Your task to perform on an android device: Open the map Image 0: 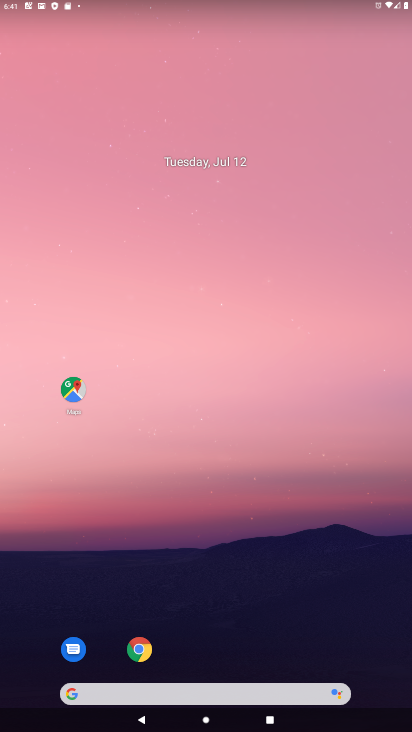
Step 0: click (74, 389)
Your task to perform on an android device: Open the map Image 1: 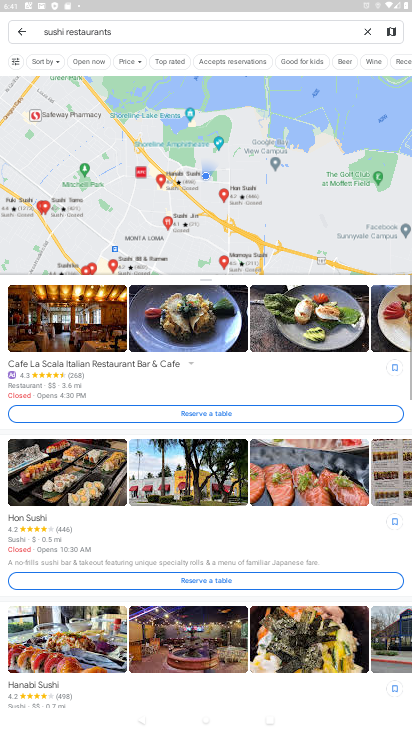
Step 1: click (364, 30)
Your task to perform on an android device: Open the map Image 2: 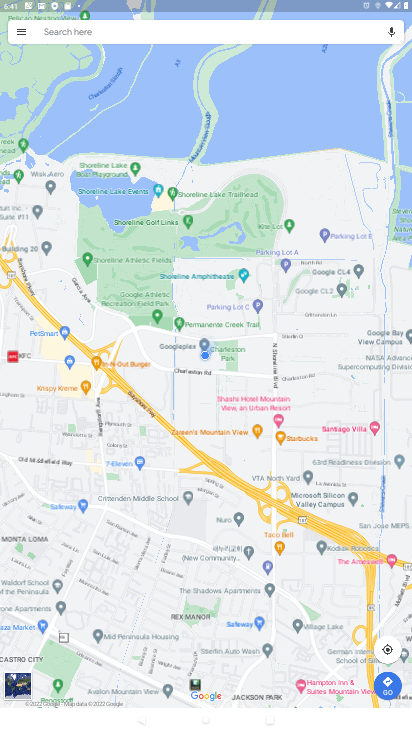
Step 2: task complete